Your task to perform on an android device: open chrome privacy settings Image 0: 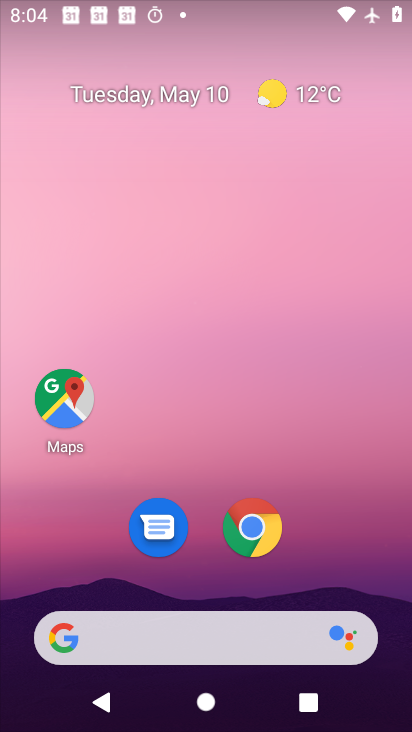
Step 0: click (265, 543)
Your task to perform on an android device: open chrome privacy settings Image 1: 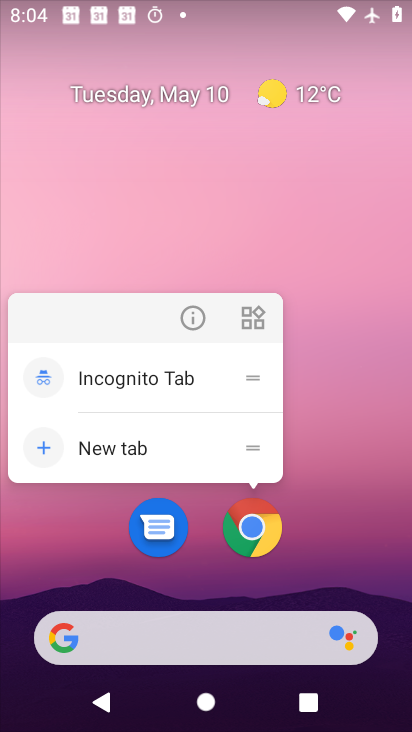
Step 1: click (229, 542)
Your task to perform on an android device: open chrome privacy settings Image 2: 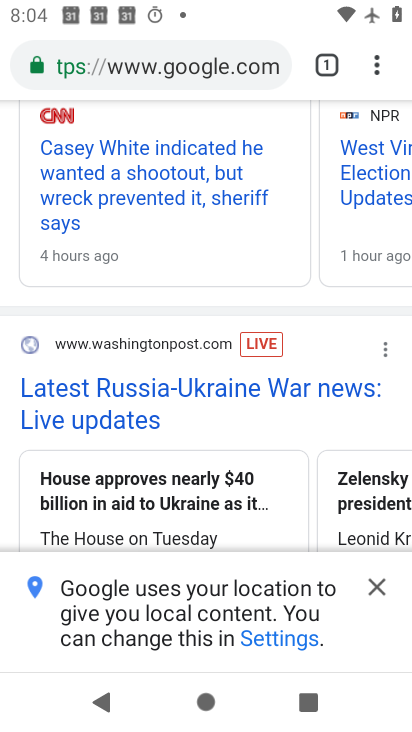
Step 2: drag from (375, 66) to (190, 581)
Your task to perform on an android device: open chrome privacy settings Image 3: 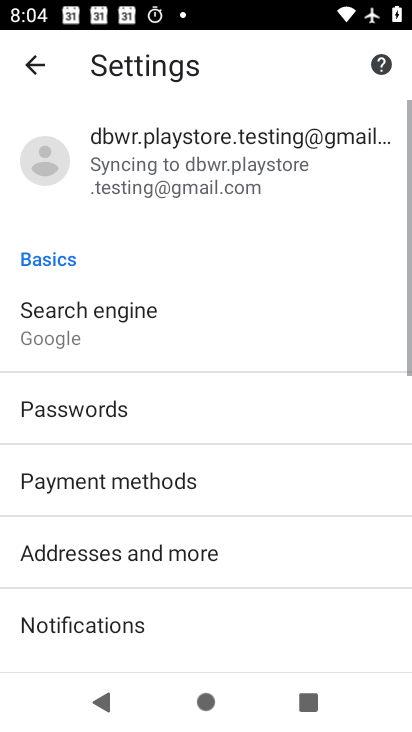
Step 3: drag from (213, 480) to (230, 307)
Your task to perform on an android device: open chrome privacy settings Image 4: 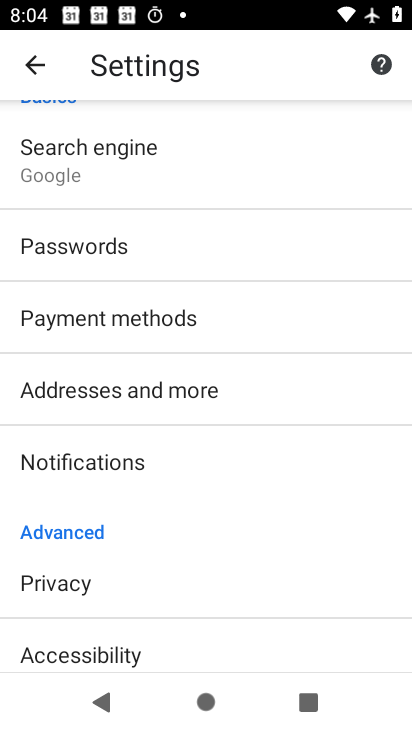
Step 4: click (63, 594)
Your task to perform on an android device: open chrome privacy settings Image 5: 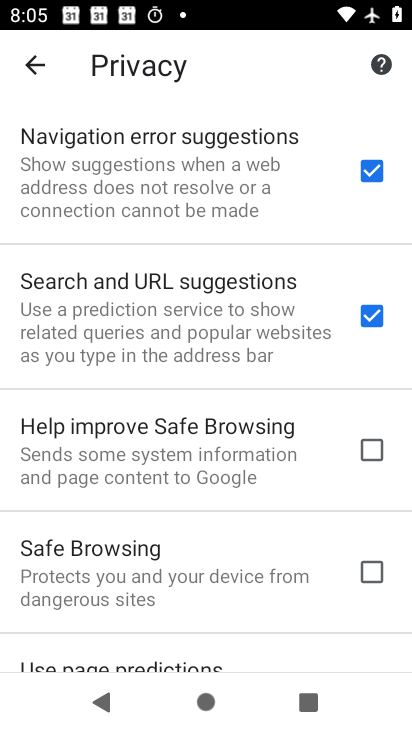
Step 5: task complete